Your task to perform on an android device: Open battery settings Image 0: 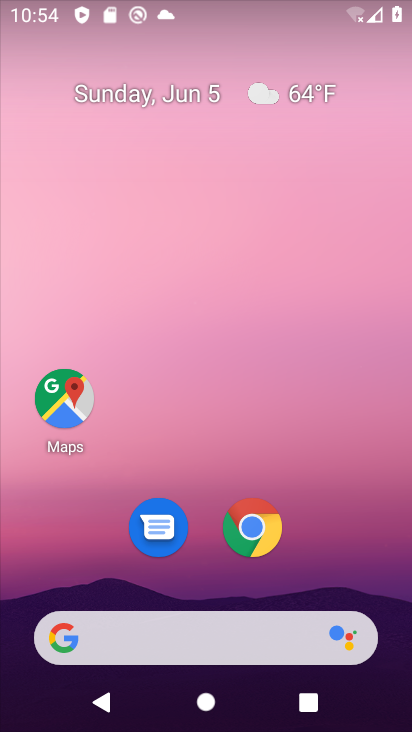
Step 0: drag from (350, 551) to (342, 73)
Your task to perform on an android device: Open battery settings Image 1: 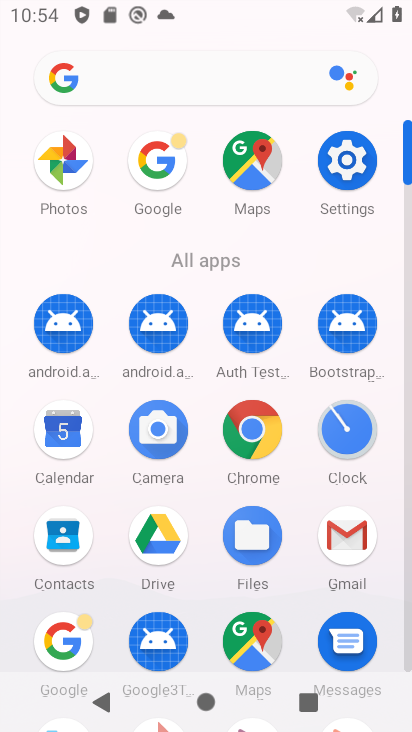
Step 1: click (337, 166)
Your task to perform on an android device: Open battery settings Image 2: 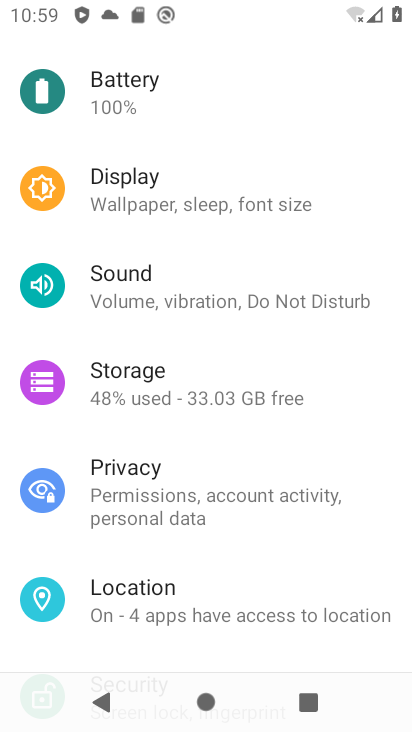
Step 2: click (130, 108)
Your task to perform on an android device: Open battery settings Image 3: 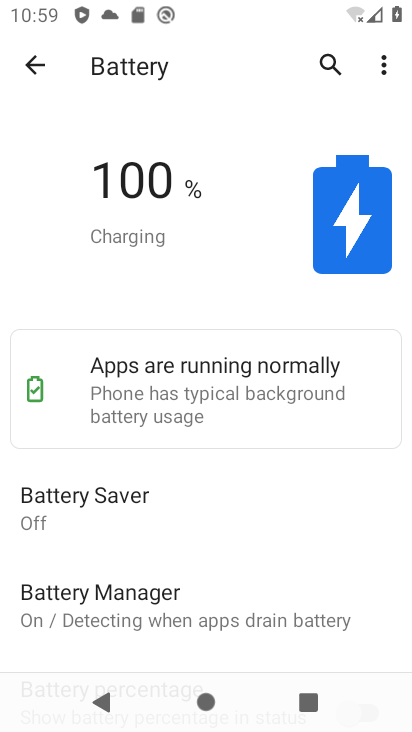
Step 3: task complete